Your task to perform on an android device: change text size in settings app Image 0: 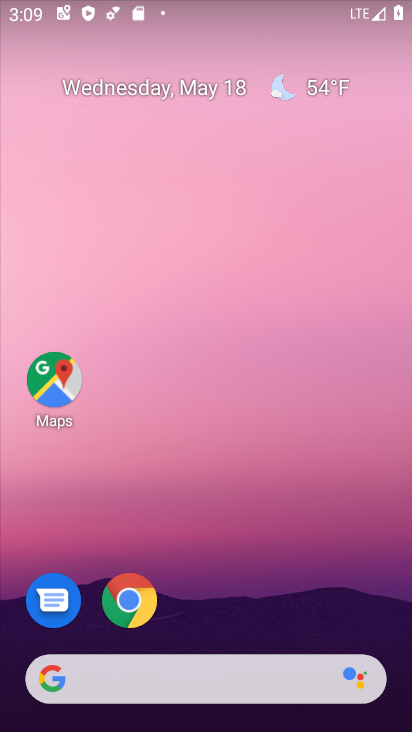
Step 0: drag from (132, 695) to (283, 258)
Your task to perform on an android device: change text size in settings app Image 1: 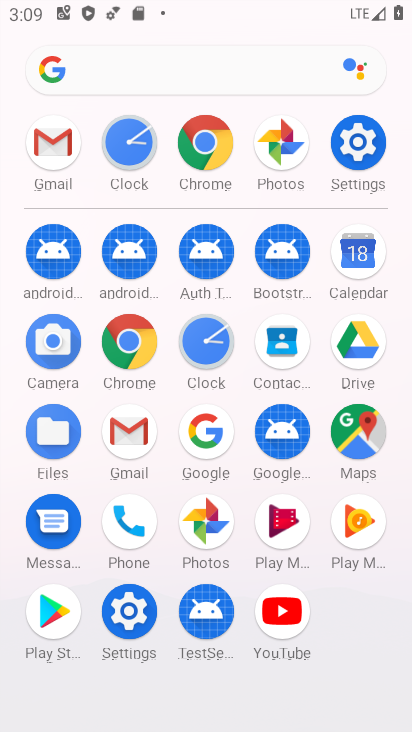
Step 1: click (360, 159)
Your task to perform on an android device: change text size in settings app Image 2: 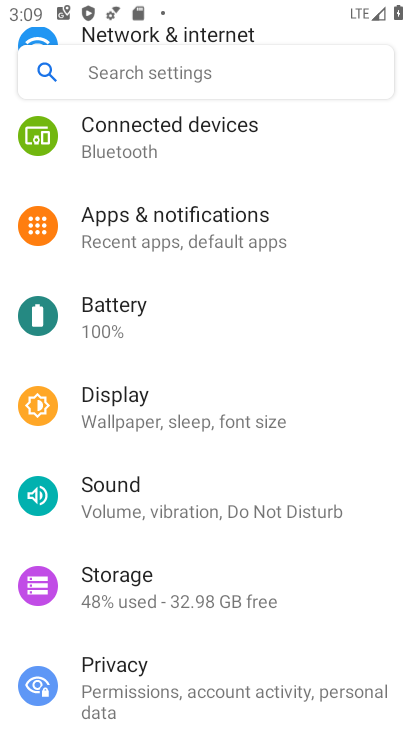
Step 2: drag from (266, 270) to (263, 576)
Your task to perform on an android device: change text size in settings app Image 3: 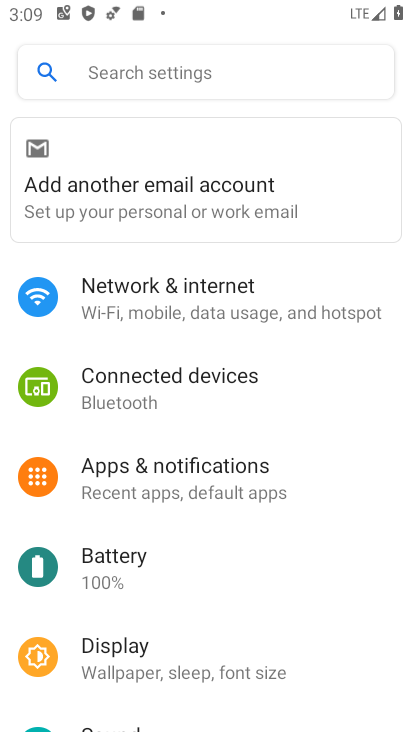
Step 3: drag from (256, 576) to (355, 330)
Your task to perform on an android device: change text size in settings app Image 4: 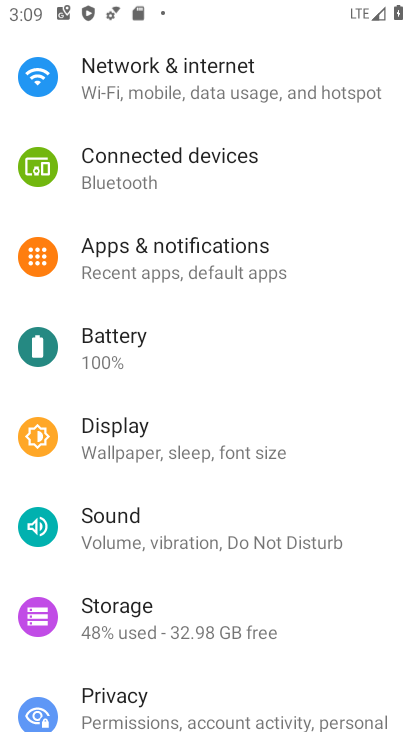
Step 4: click (260, 453)
Your task to perform on an android device: change text size in settings app Image 5: 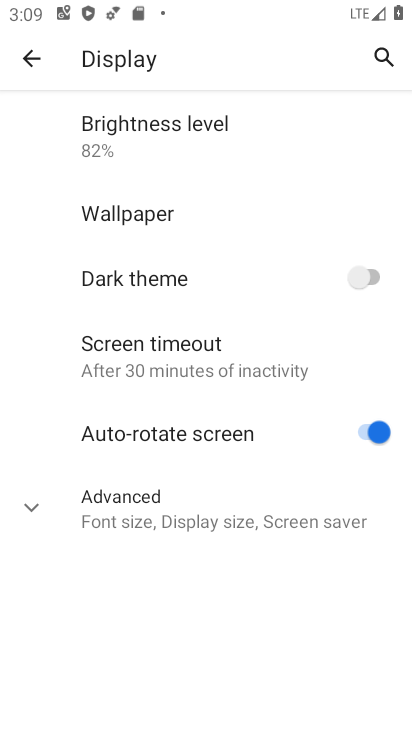
Step 5: click (138, 522)
Your task to perform on an android device: change text size in settings app Image 6: 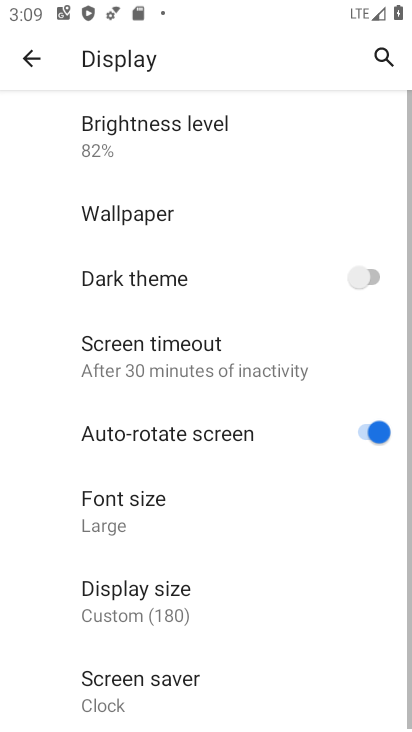
Step 6: click (131, 514)
Your task to perform on an android device: change text size in settings app Image 7: 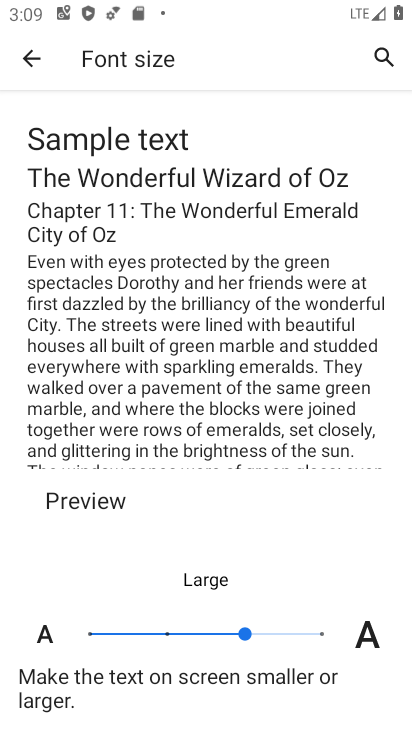
Step 7: click (162, 633)
Your task to perform on an android device: change text size in settings app Image 8: 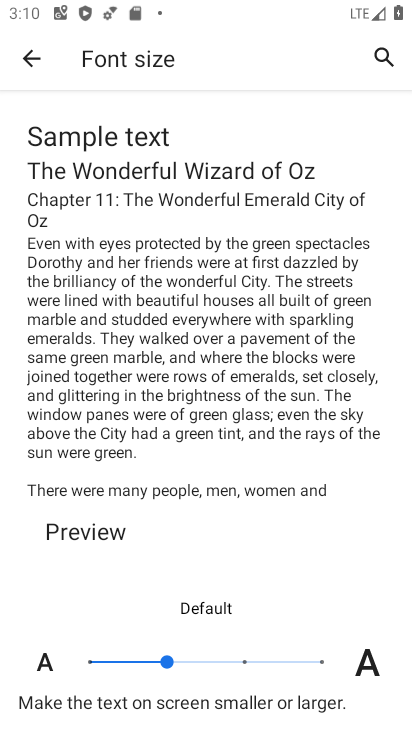
Step 8: task complete